Your task to perform on an android device: snooze an email in the gmail app Image 0: 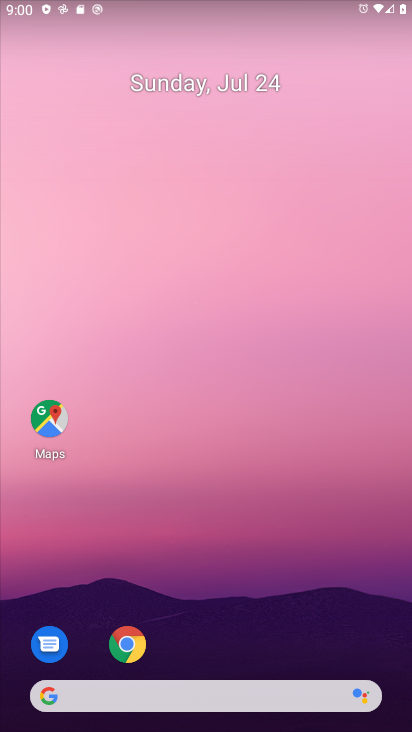
Step 0: drag from (254, 603) to (200, 161)
Your task to perform on an android device: snooze an email in the gmail app Image 1: 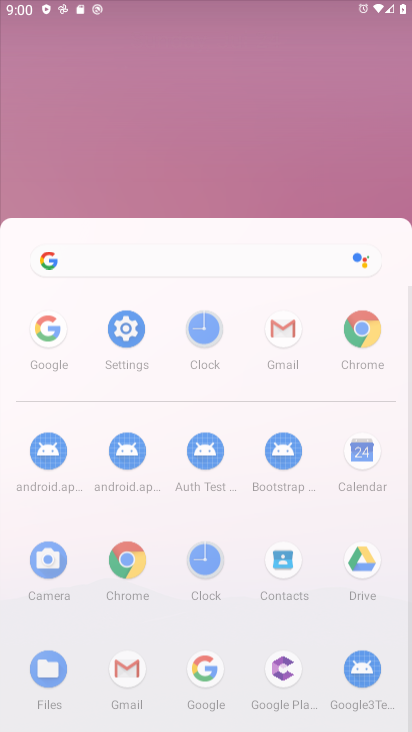
Step 1: drag from (249, 586) to (203, 135)
Your task to perform on an android device: snooze an email in the gmail app Image 2: 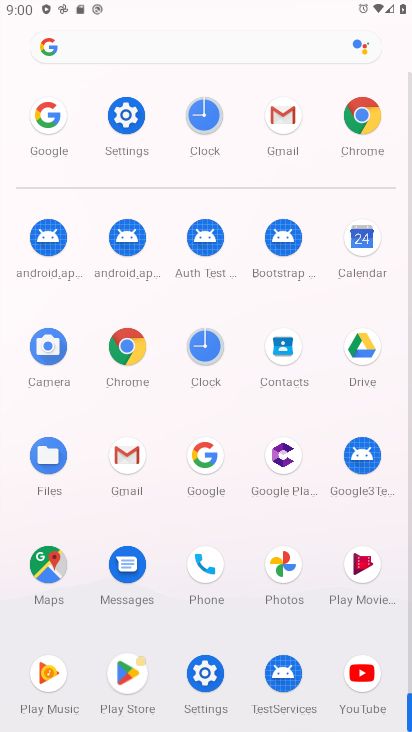
Step 2: click (112, 459)
Your task to perform on an android device: snooze an email in the gmail app Image 3: 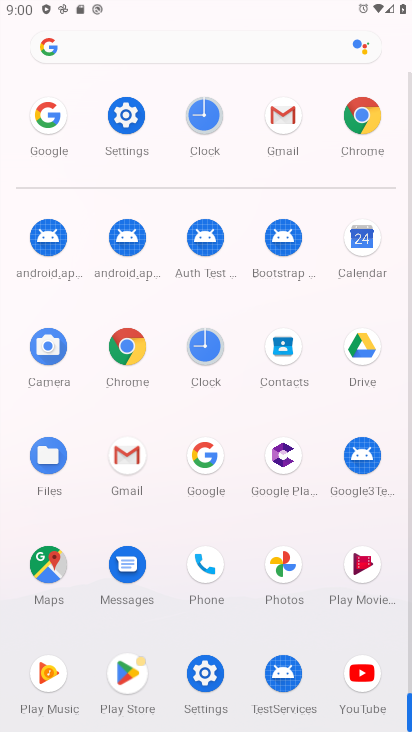
Step 3: click (124, 455)
Your task to perform on an android device: snooze an email in the gmail app Image 4: 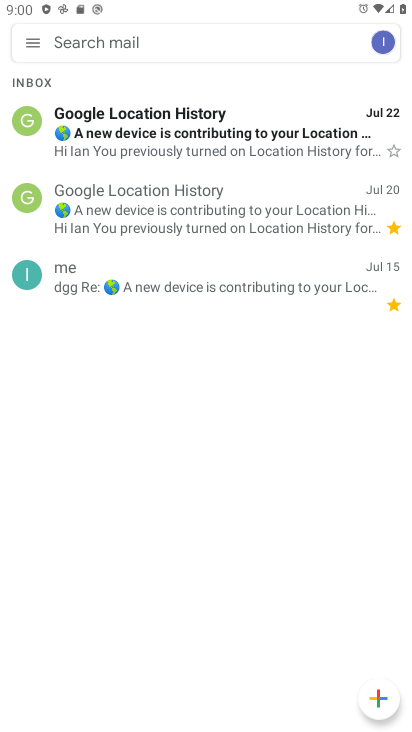
Step 4: click (218, 138)
Your task to perform on an android device: snooze an email in the gmail app Image 5: 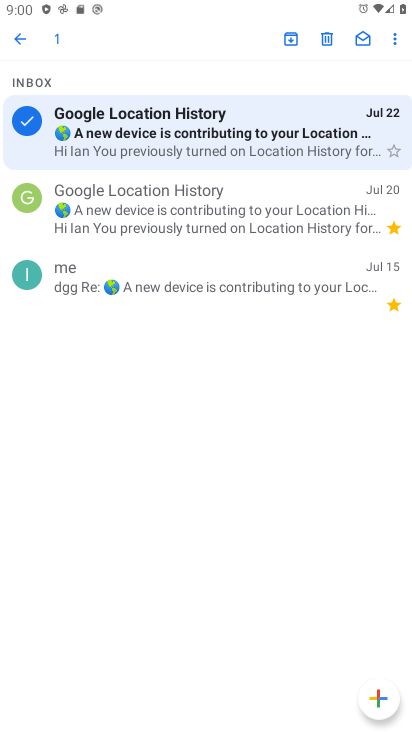
Step 5: click (387, 45)
Your task to perform on an android device: snooze an email in the gmail app Image 6: 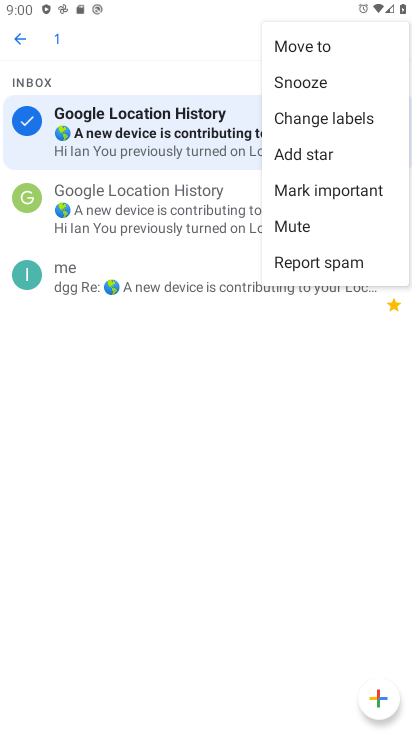
Step 6: click (300, 81)
Your task to perform on an android device: snooze an email in the gmail app Image 7: 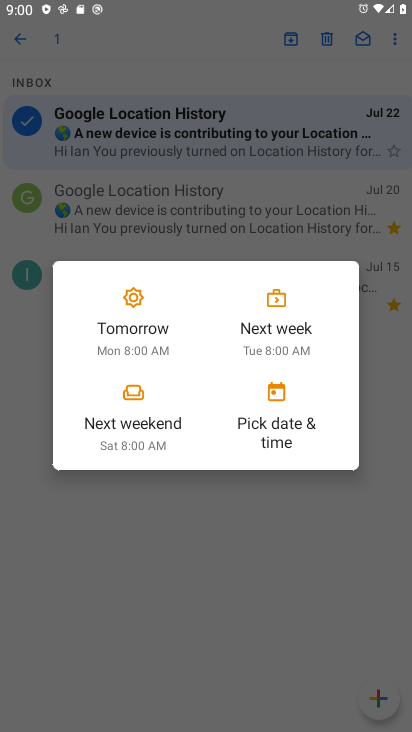
Step 7: click (270, 435)
Your task to perform on an android device: snooze an email in the gmail app Image 8: 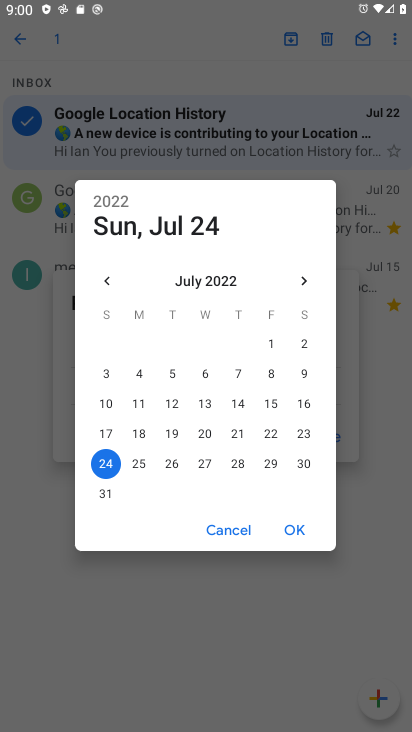
Step 8: click (158, 461)
Your task to perform on an android device: snooze an email in the gmail app Image 9: 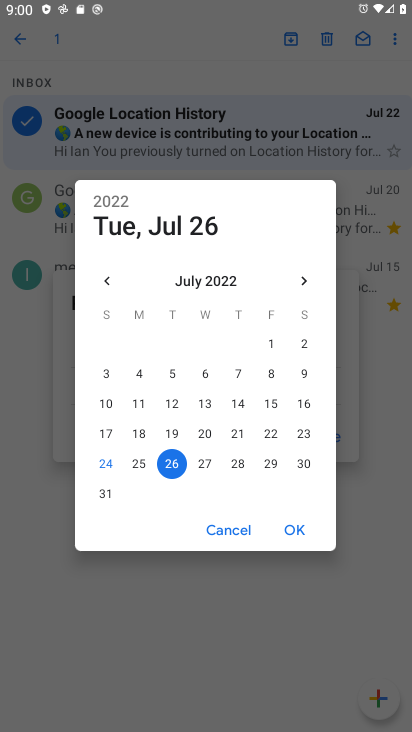
Step 9: click (132, 462)
Your task to perform on an android device: snooze an email in the gmail app Image 10: 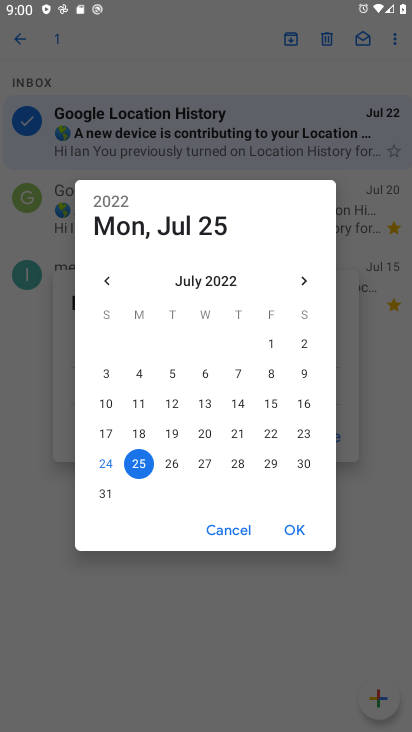
Step 10: click (301, 520)
Your task to perform on an android device: snooze an email in the gmail app Image 11: 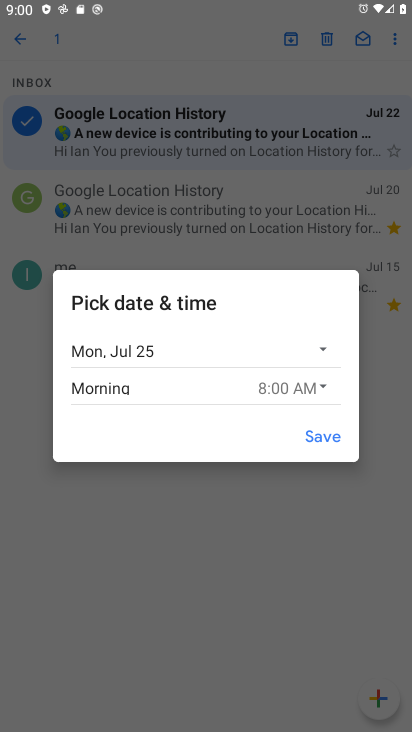
Step 11: click (306, 444)
Your task to perform on an android device: snooze an email in the gmail app Image 12: 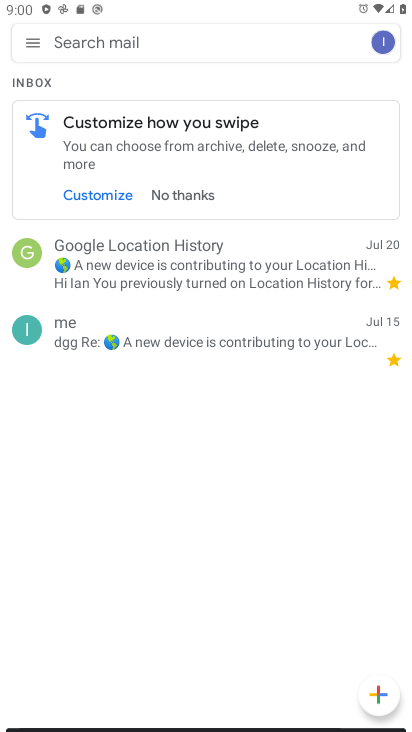
Step 12: task complete